Your task to perform on an android device: Open calendar and show me the second week of next month Image 0: 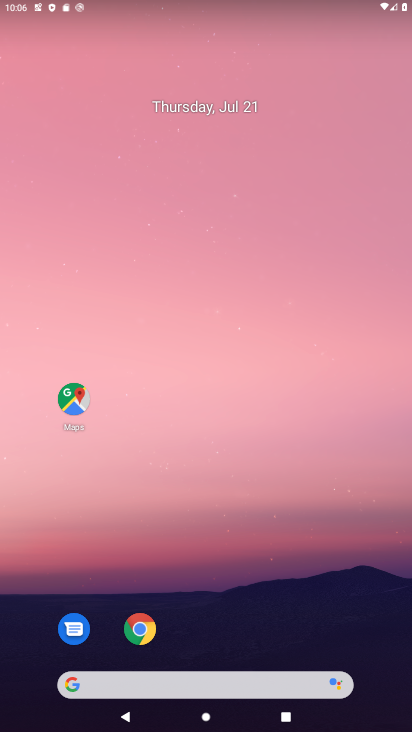
Step 0: click (222, 122)
Your task to perform on an android device: Open calendar and show me the second week of next month Image 1: 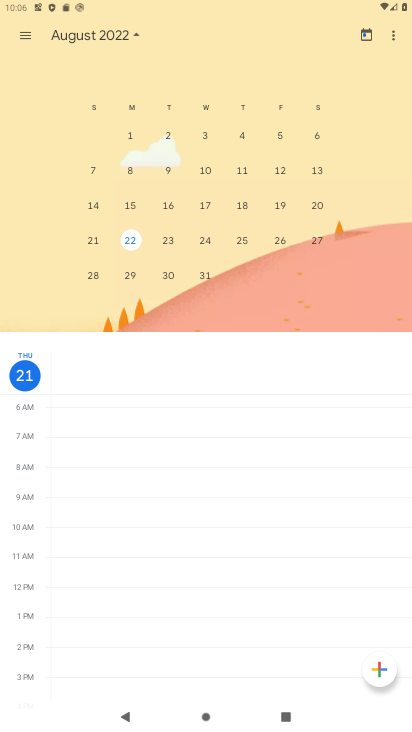
Step 1: click (175, 177)
Your task to perform on an android device: Open calendar and show me the second week of next month Image 2: 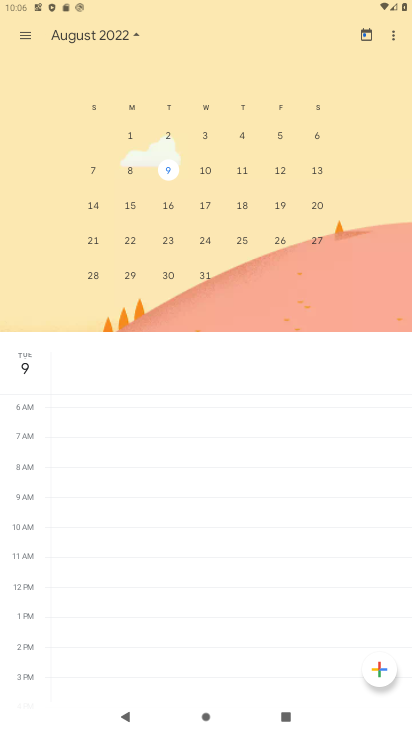
Step 2: task complete